Your task to perform on an android device: Open the stopwatch Image 0: 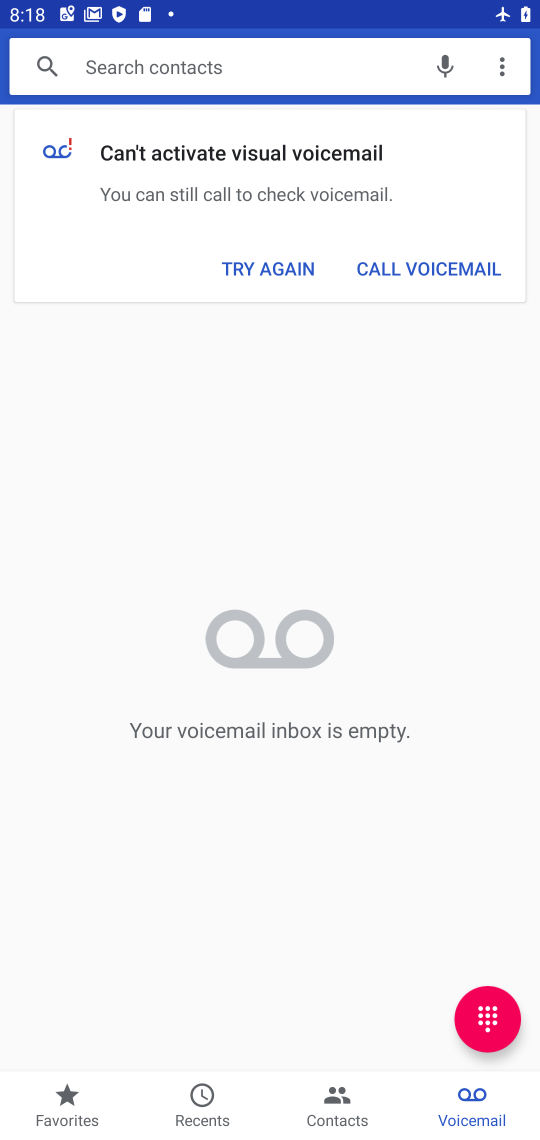
Step 0: press home button
Your task to perform on an android device: Open the stopwatch Image 1: 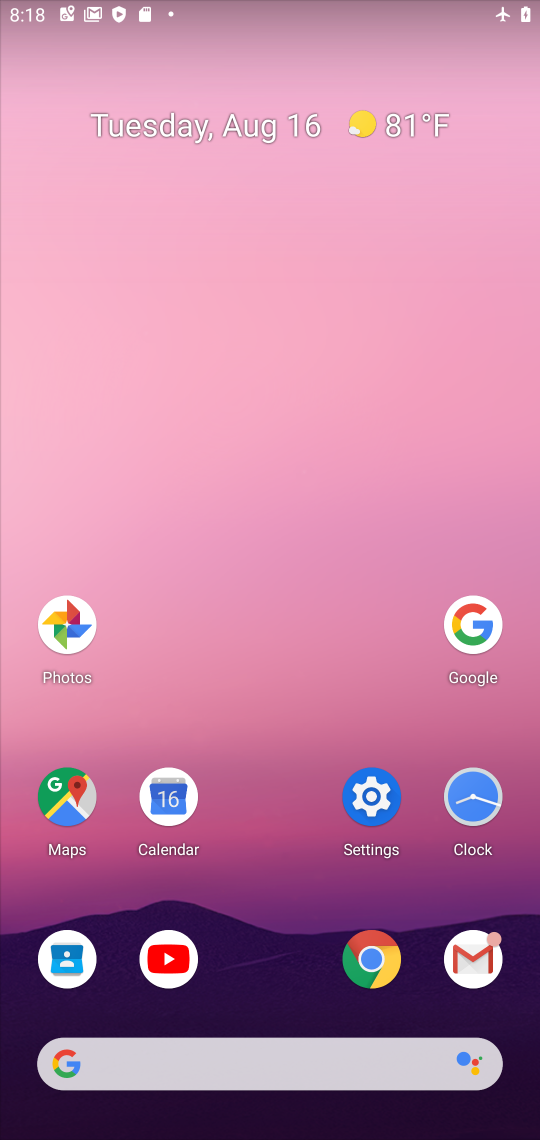
Step 1: click (475, 795)
Your task to perform on an android device: Open the stopwatch Image 2: 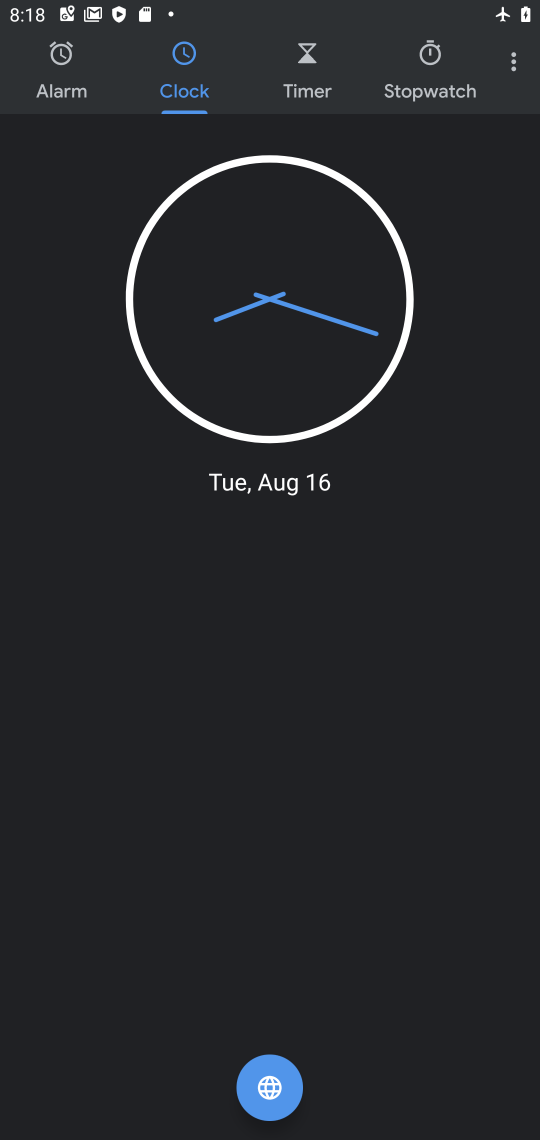
Step 2: click (433, 58)
Your task to perform on an android device: Open the stopwatch Image 3: 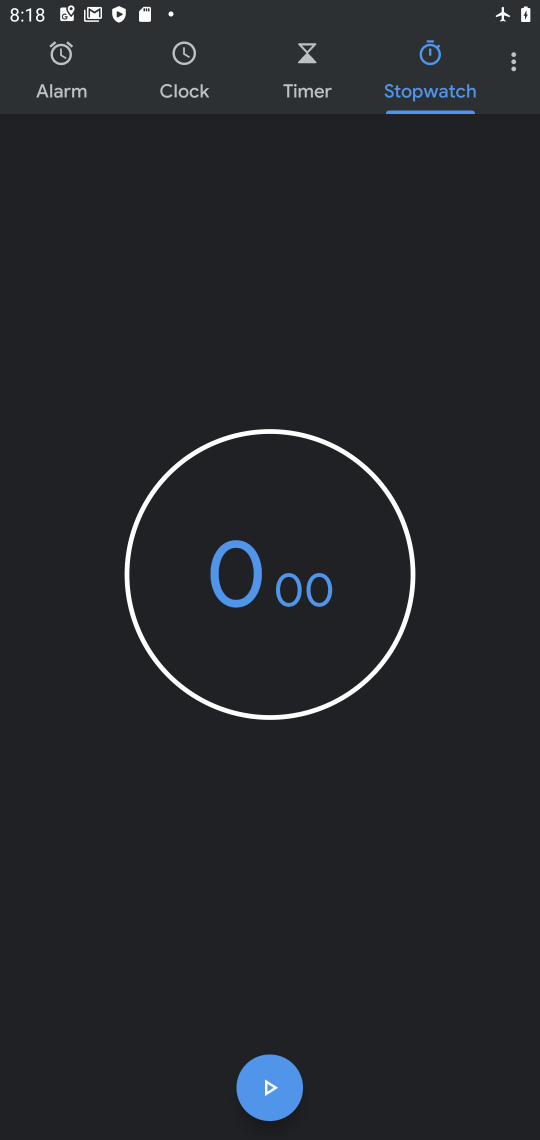
Step 3: task complete